Your task to perform on an android device: manage bookmarks in the chrome app Image 0: 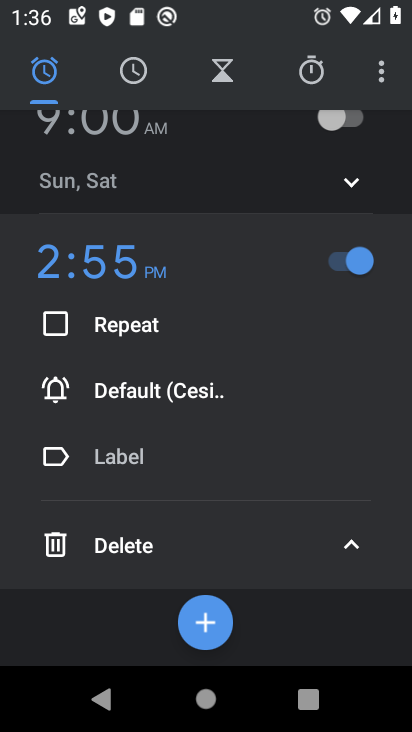
Step 0: press home button
Your task to perform on an android device: manage bookmarks in the chrome app Image 1: 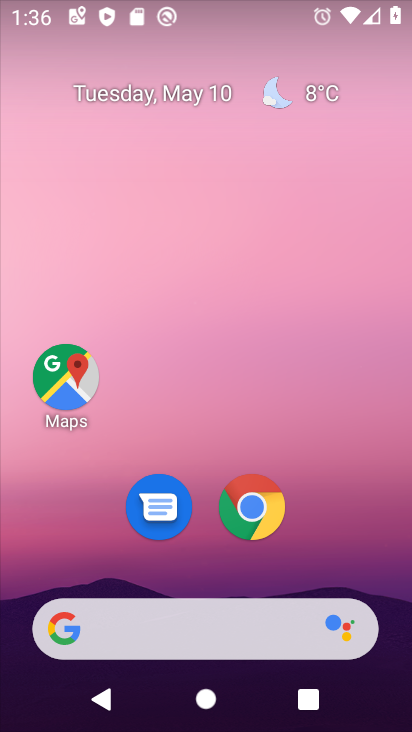
Step 1: click (252, 512)
Your task to perform on an android device: manage bookmarks in the chrome app Image 2: 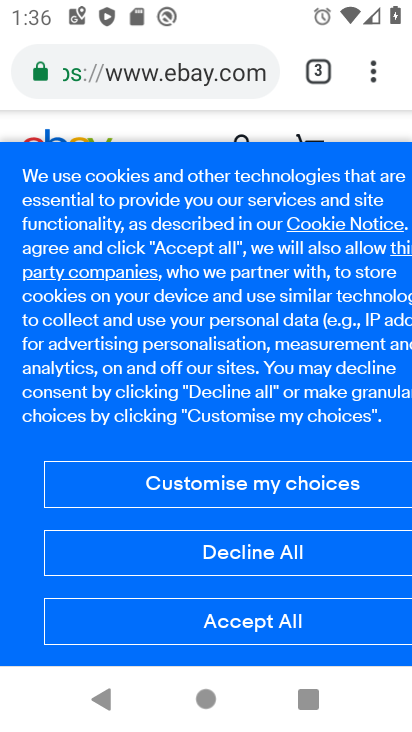
Step 2: click (374, 81)
Your task to perform on an android device: manage bookmarks in the chrome app Image 3: 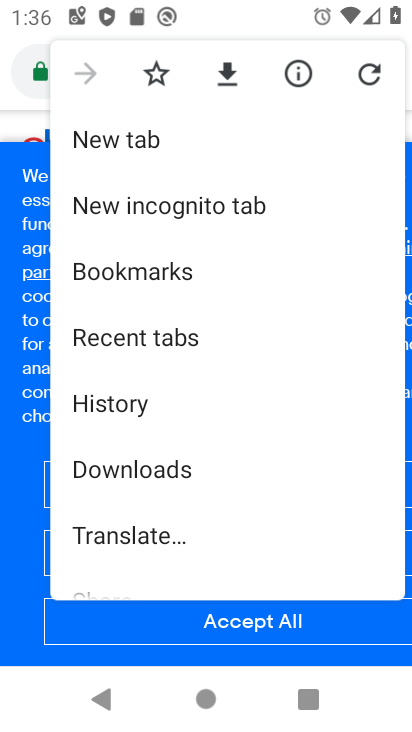
Step 3: drag from (146, 555) to (146, 268)
Your task to perform on an android device: manage bookmarks in the chrome app Image 4: 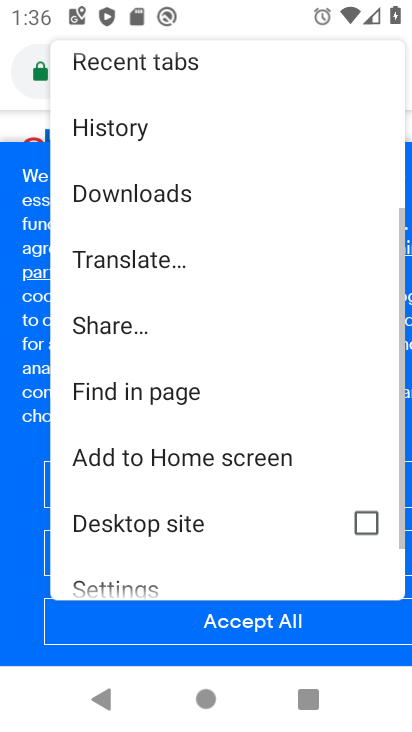
Step 4: drag from (159, 547) to (174, 157)
Your task to perform on an android device: manage bookmarks in the chrome app Image 5: 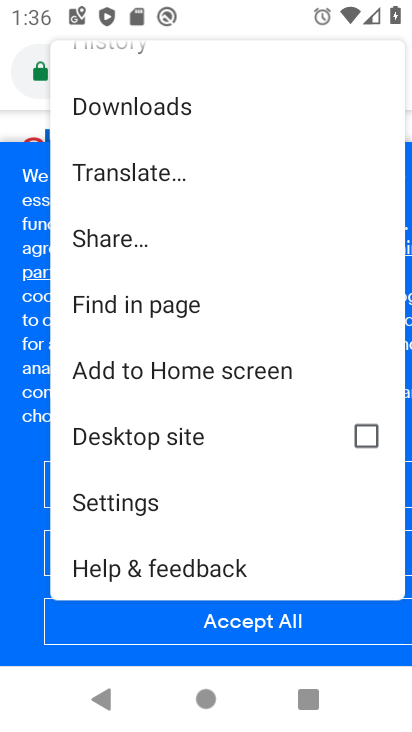
Step 5: drag from (226, 122) to (208, 343)
Your task to perform on an android device: manage bookmarks in the chrome app Image 6: 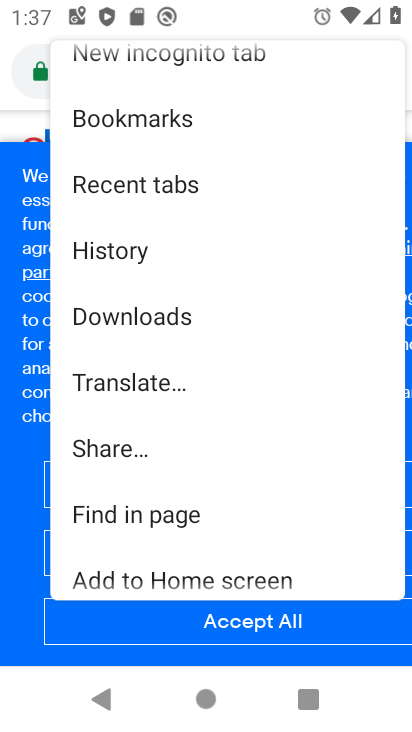
Step 6: click (146, 115)
Your task to perform on an android device: manage bookmarks in the chrome app Image 7: 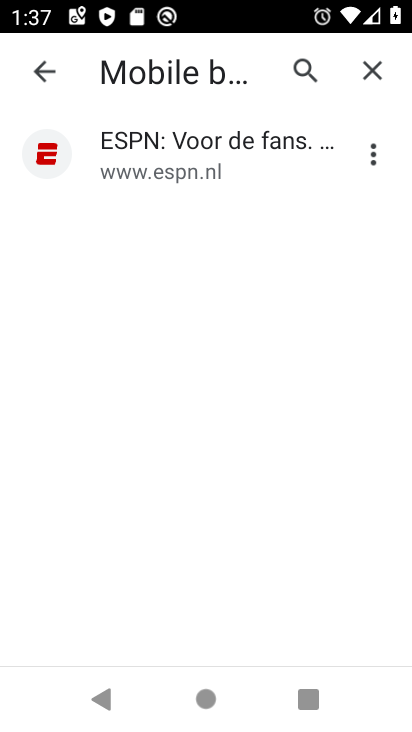
Step 7: click (375, 150)
Your task to perform on an android device: manage bookmarks in the chrome app Image 8: 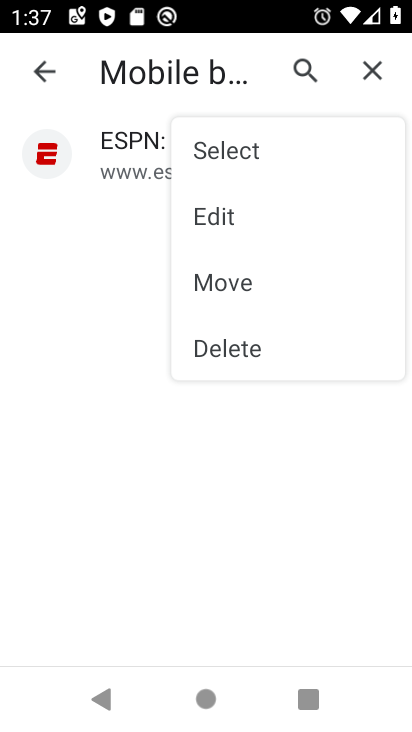
Step 8: click (216, 215)
Your task to perform on an android device: manage bookmarks in the chrome app Image 9: 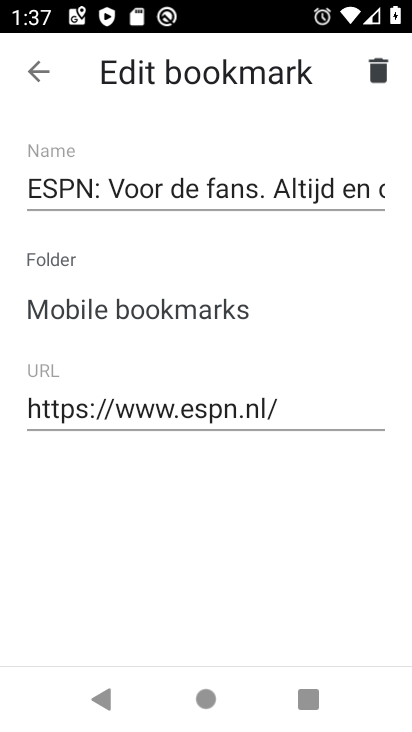
Step 9: click (253, 190)
Your task to perform on an android device: manage bookmarks in the chrome app Image 10: 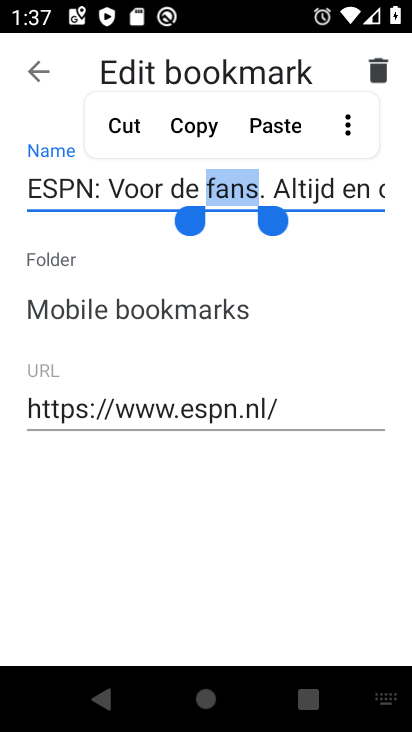
Step 10: drag from (191, 226) to (10, 201)
Your task to perform on an android device: manage bookmarks in the chrome app Image 11: 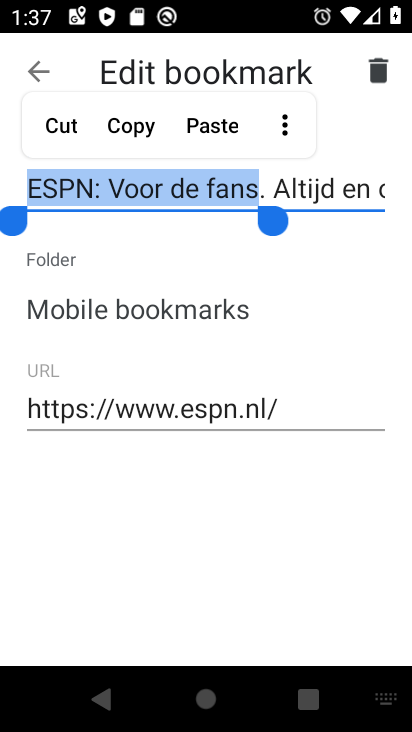
Step 11: click (57, 122)
Your task to perform on an android device: manage bookmarks in the chrome app Image 12: 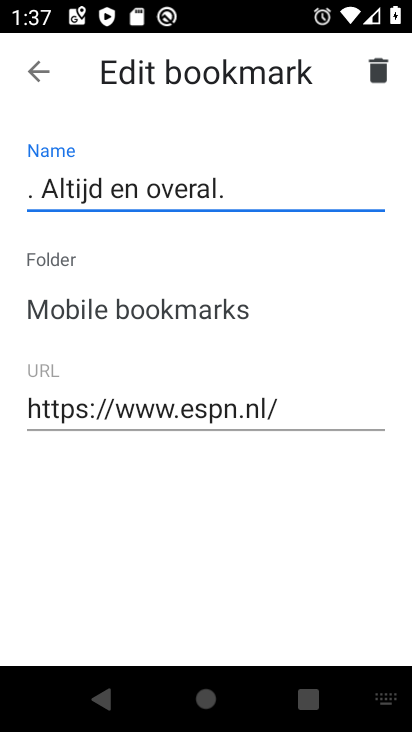
Step 12: click (192, 190)
Your task to perform on an android device: manage bookmarks in the chrome app Image 13: 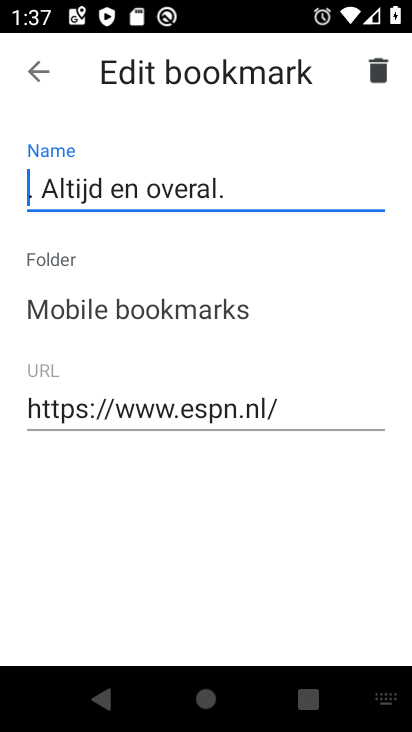
Step 13: click (192, 190)
Your task to perform on an android device: manage bookmarks in the chrome app Image 14: 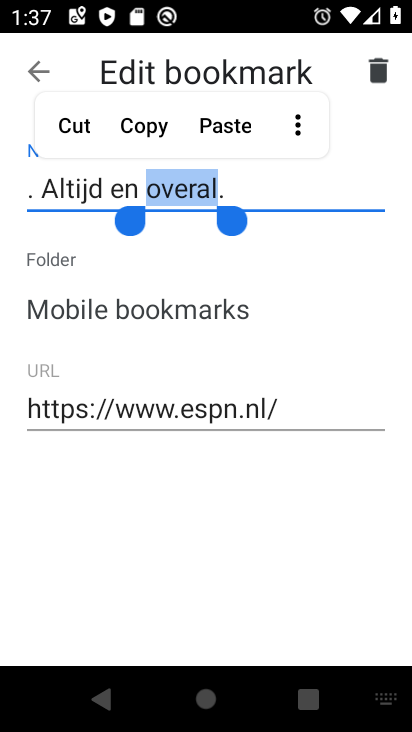
Step 14: click (80, 127)
Your task to perform on an android device: manage bookmarks in the chrome app Image 15: 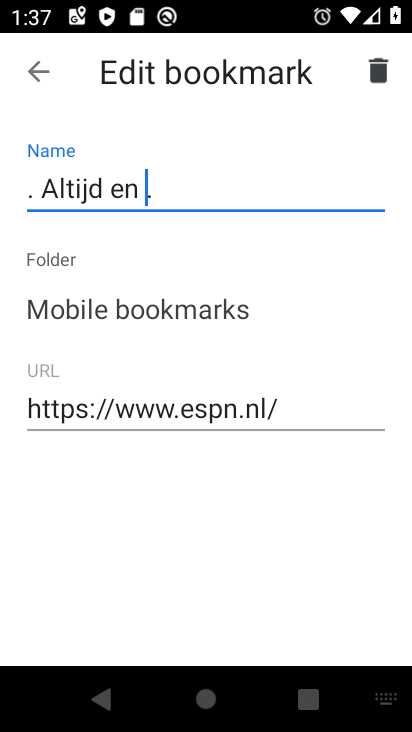
Step 15: click (74, 183)
Your task to perform on an android device: manage bookmarks in the chrome app Image 16: 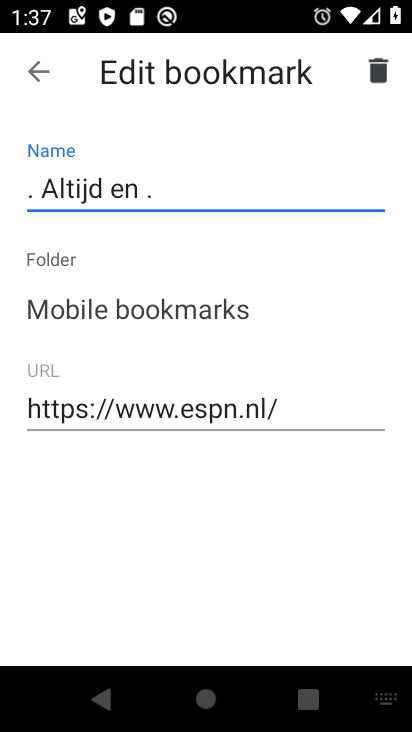
Step 16: click (74, 183)
Your task to perform on an android device: manage bookmarks in the chrome app Image 17: 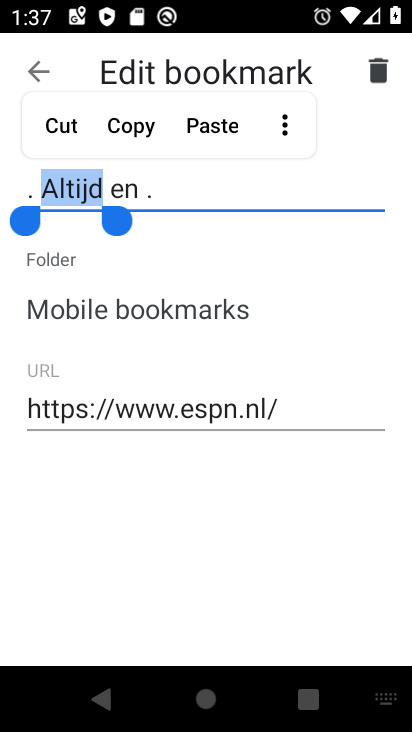
Step 17: drag from (112, 225) to (159, 219)
Your task to perform on an android device: manage bookmarks in the chrome app Image 18: 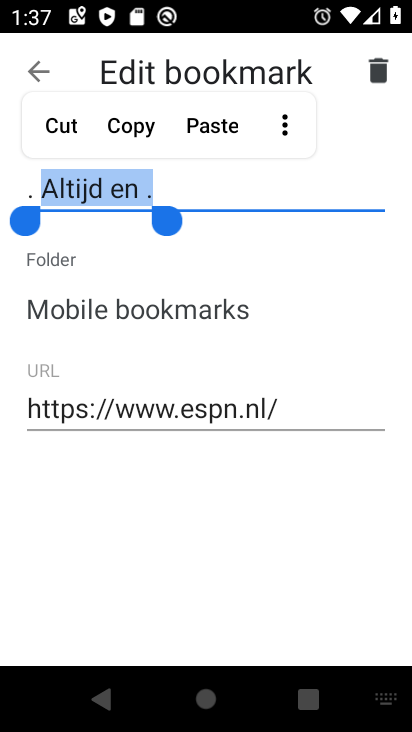
Step 18: click (62, 126)
Your task to perform on an android device: manage bookmarks in the chrome app Image 19: 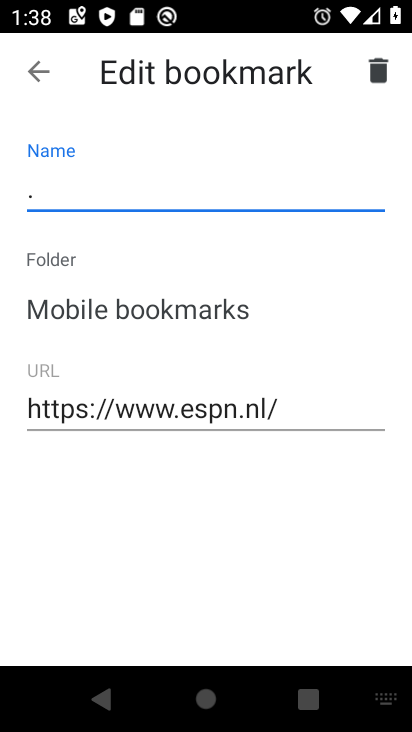
Step 19: type "news"
Your task to perform on an android device: manage bookmarks in the chrome app Image 20: 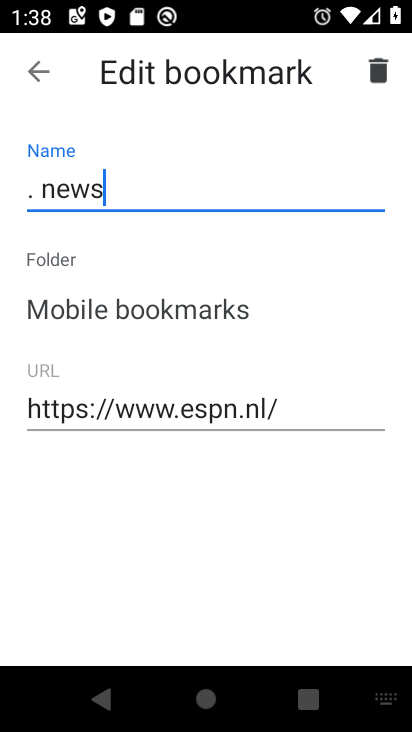
Step 20: click (40, 78)
Your task to perform on an android device: manage bookmarks in the chrome app Image 21: 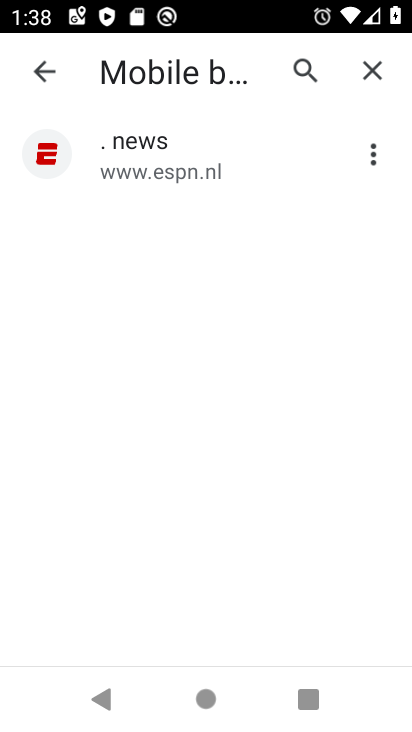
Step 21: task complete